Your task to perform on an android device: turn on sleep mode Image 0: 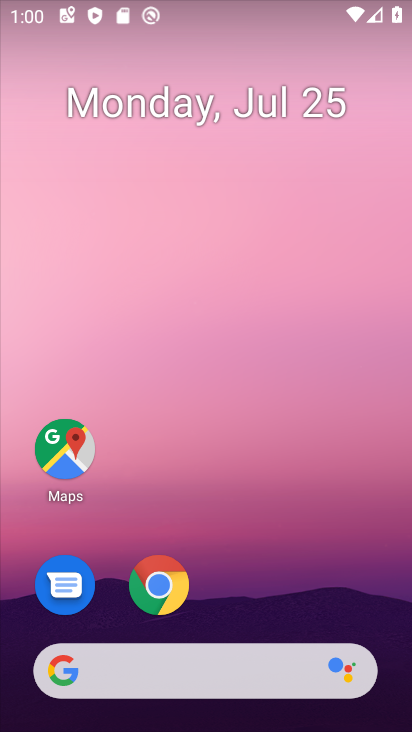
Step 0: drag from (339, 105) to (332, 15)
Your task to perform on an android device: turn on sleep mode Image 1: 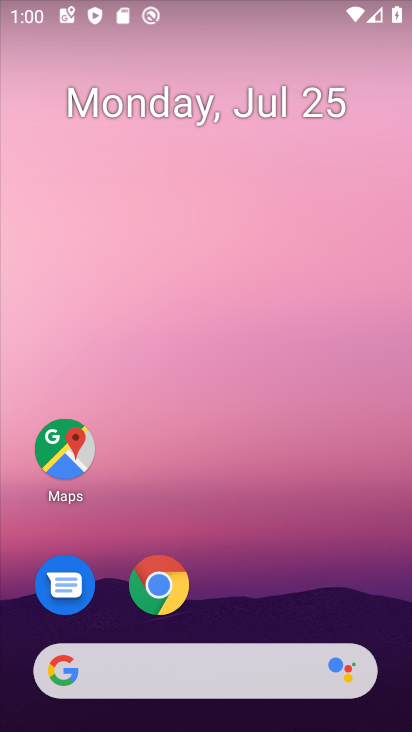
Step 1: drag from (268, 212) to (270, 13)
Your task to perform on an android device: turn on sleep mode Image 2: 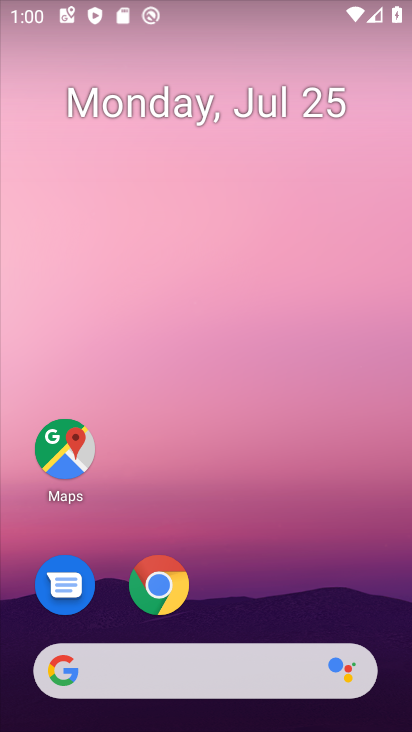
Step 2: drag from (226, 573) to (298, 0)
Your task to perform on an android device: turn on sleep mode Image 3: 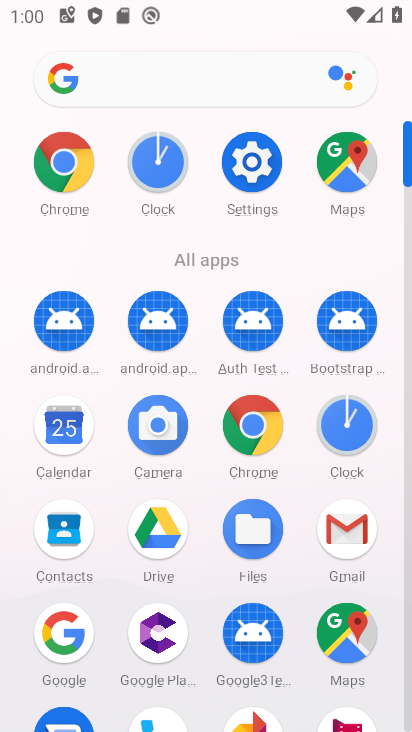
Step 3: click (256, 174)
Your task to perform on an android device: turn on sleep mode Image 4: 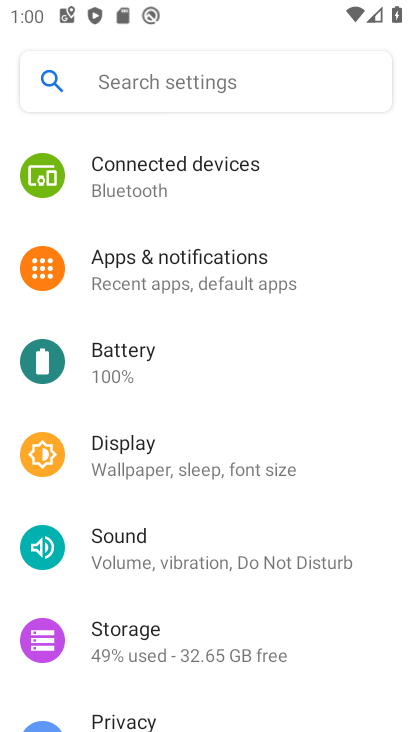
Step 4: click (119, 457)
Your task to perform on an android device: turn on sleep mode Image 5: 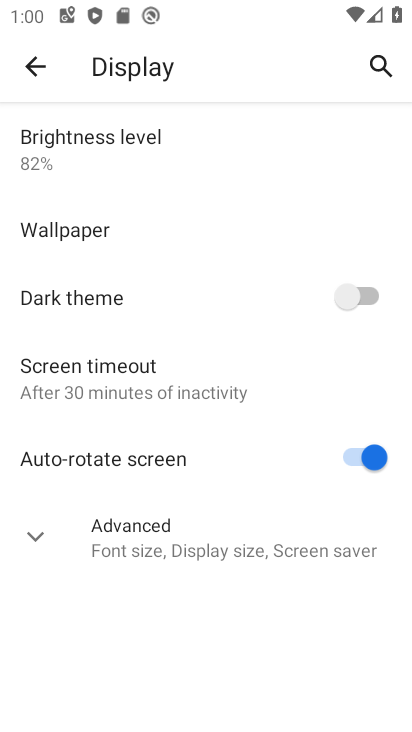
Step 5: click (40, 535)
Your task to perform on an android device: turn on sleep mode Image 6: 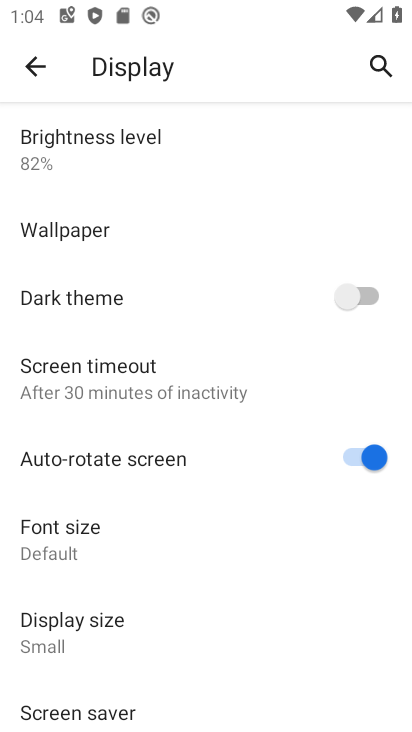
Step 6: task complete